Your task to perform on an android device: Open Wikipedia Image 0: 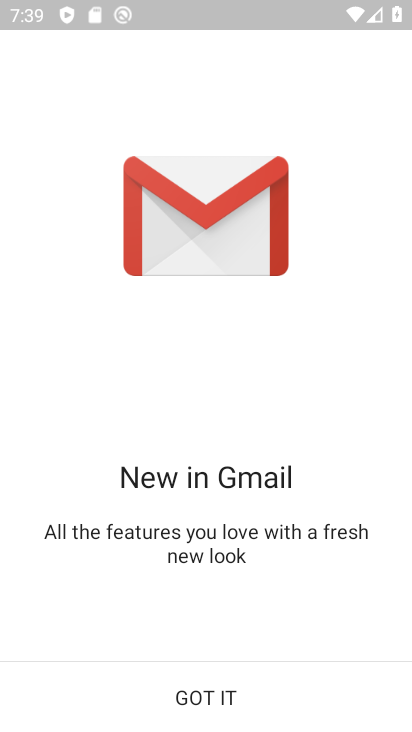
Step 0: press home button
Your task to perform on an android device: Open Wikipedia Image 1: 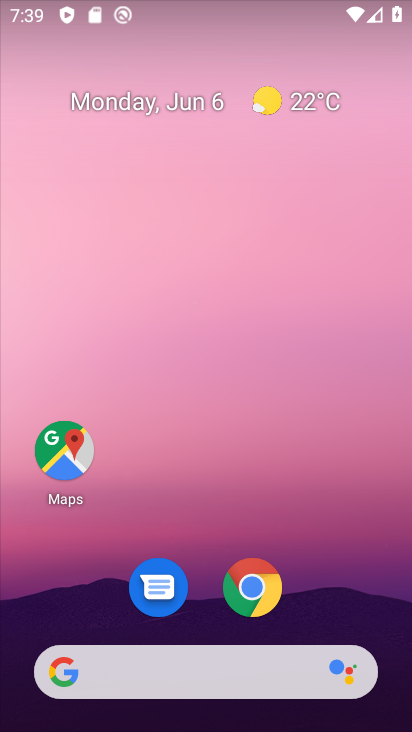
Step 1: drag from (157, 642) to (161, 365)
Your task to perform on an android device: Open Wikipedia Image 2: 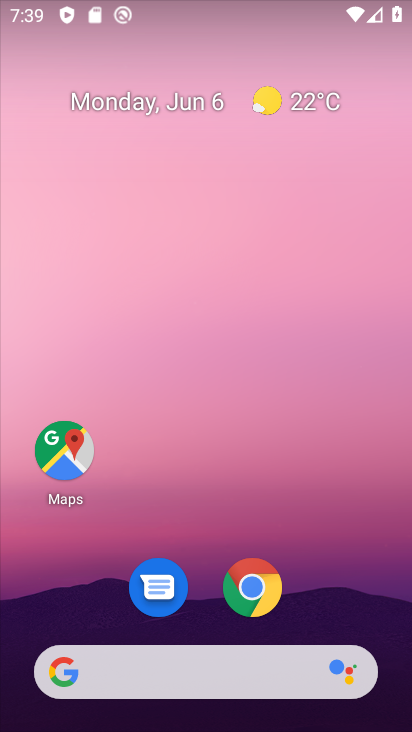
Step 2: click (243, 610)
Your task to perform on an android device: Open Wikipedia Image 3: 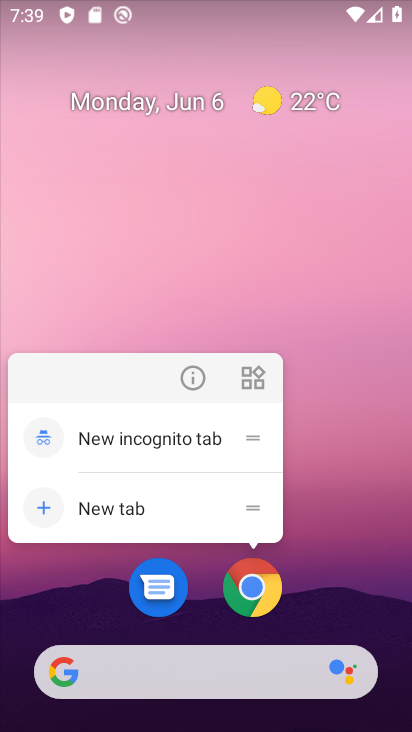
Step 3: click (246, 593)
Your task to perform on an android device: Open Wikipedia Image 4: 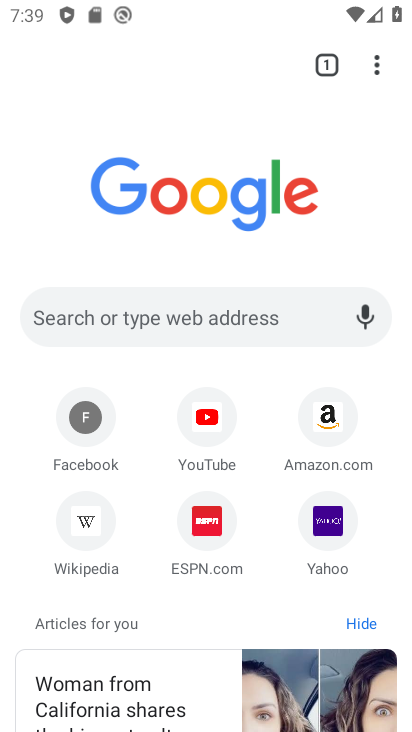
Step 4: click (74, 524)
Your task to perform on an android device: Open Wikipedia Image 5: 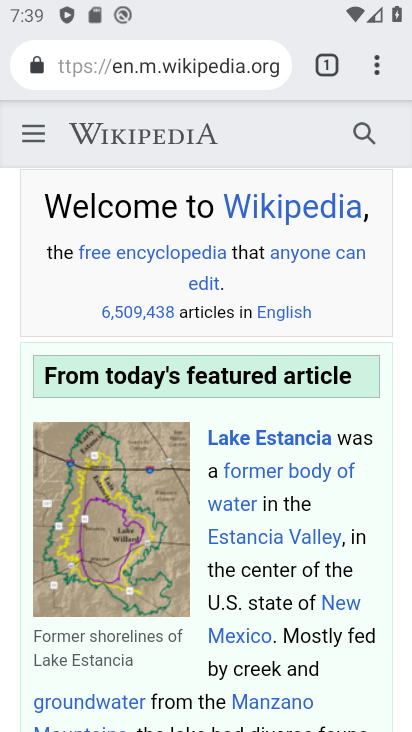
Step 5: task complete